Your task to perform on an android device: search for starred emails in the gmail app Image 0: 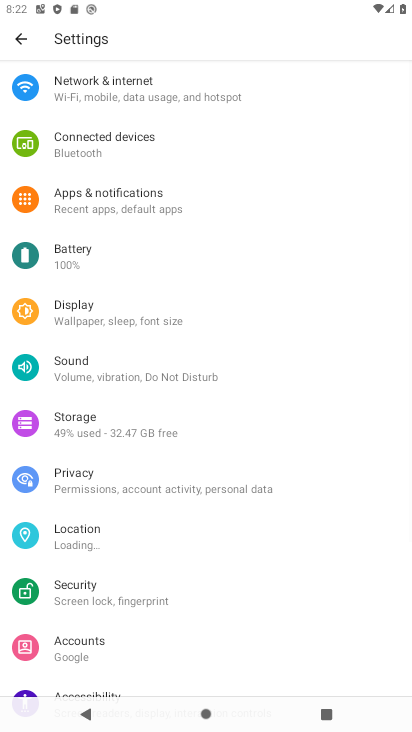
Step 0: press home button
Your task to perform on an android device: search for starred emails in the gmail app Image 1: 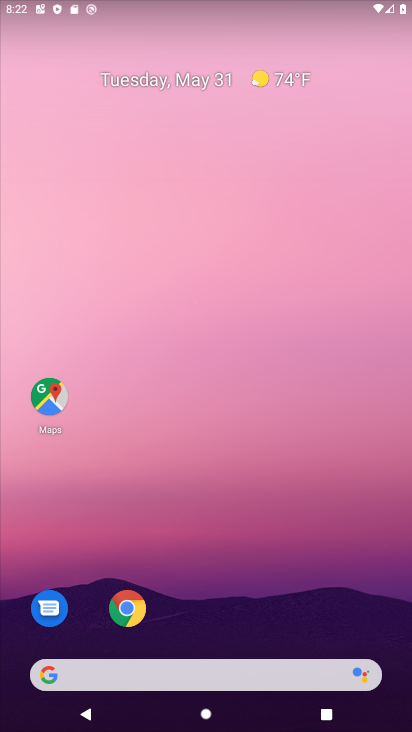
Step 1: drag from (198, 640) to (105, 84)
Your task to perform on an android device: search for starred emails in the gmail app Image 2: 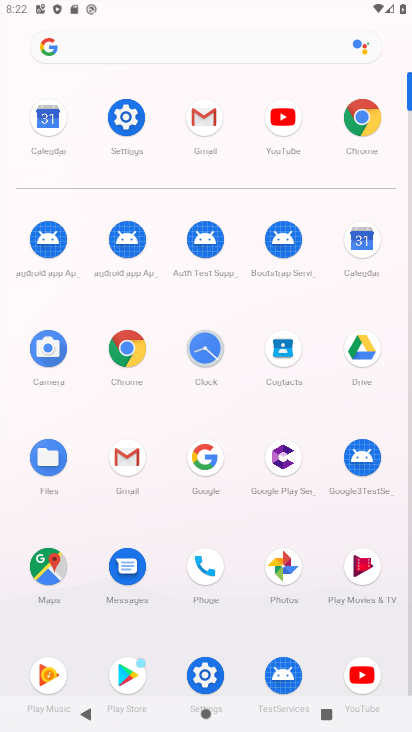
Step 2: click (137, 453)
Your task to perform on an android device: search for starred emails in the gmail app Image 3: 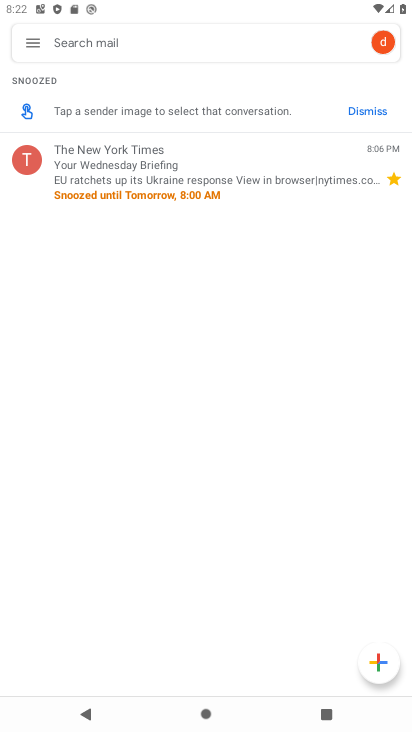
Step 3: click (39, 42)
Your task to perform on an android device: search for starred emails in the gmail app Image 4: 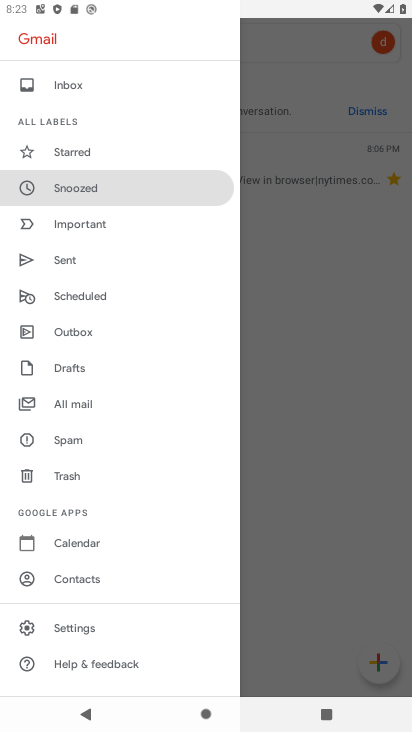
Step 4: click (78, 160)
Your task to perform on an android device: search for starred emails in the gmail app Image 5: 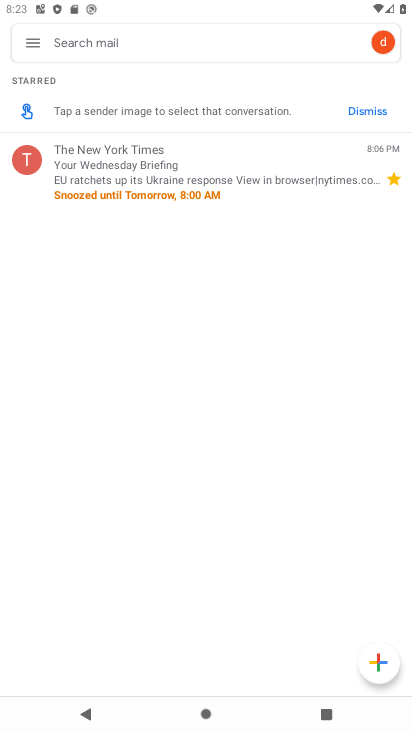
Step 5: task complete